Your task to perform on an android device: visit the assistant section in the google photos Image 0: 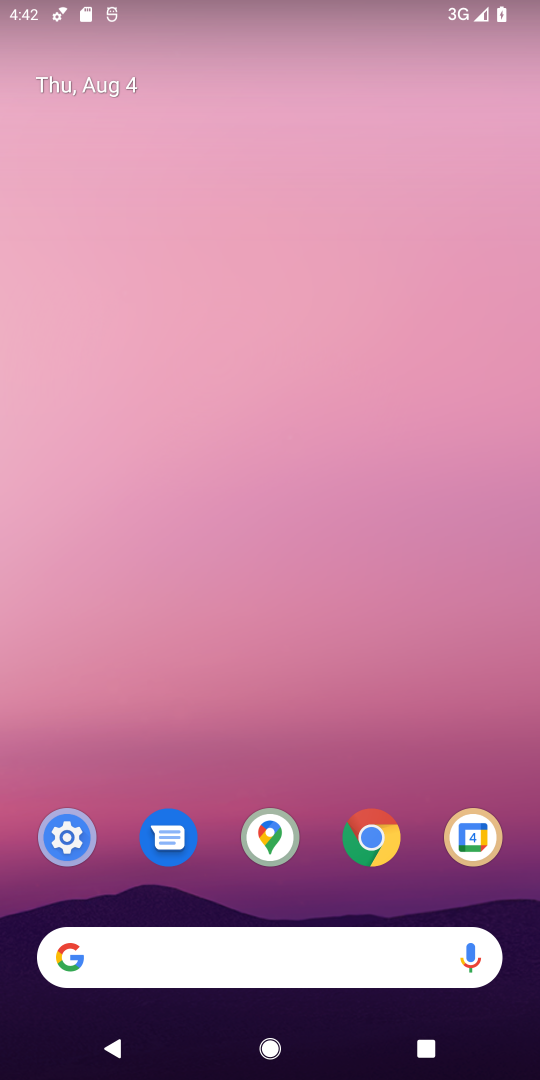
Step 0: drag from (313, 907) to (263, 326)
Your task to perform on an android device: visit the assistant section in the google photos Image 1: 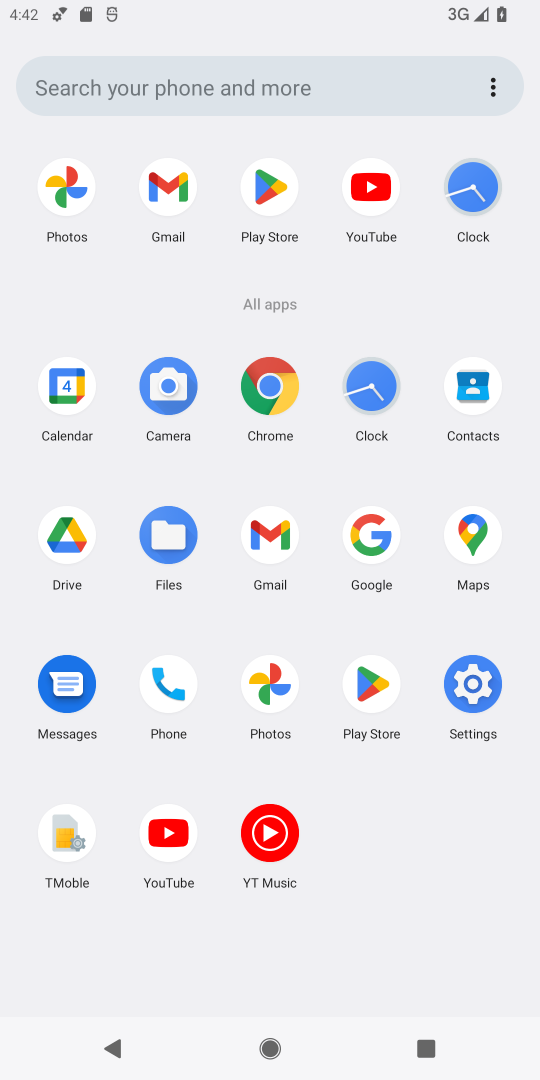
Step 1: click (263, 679)
Your task to perform on an android device: visit the assistant section in the google photos Image 2: 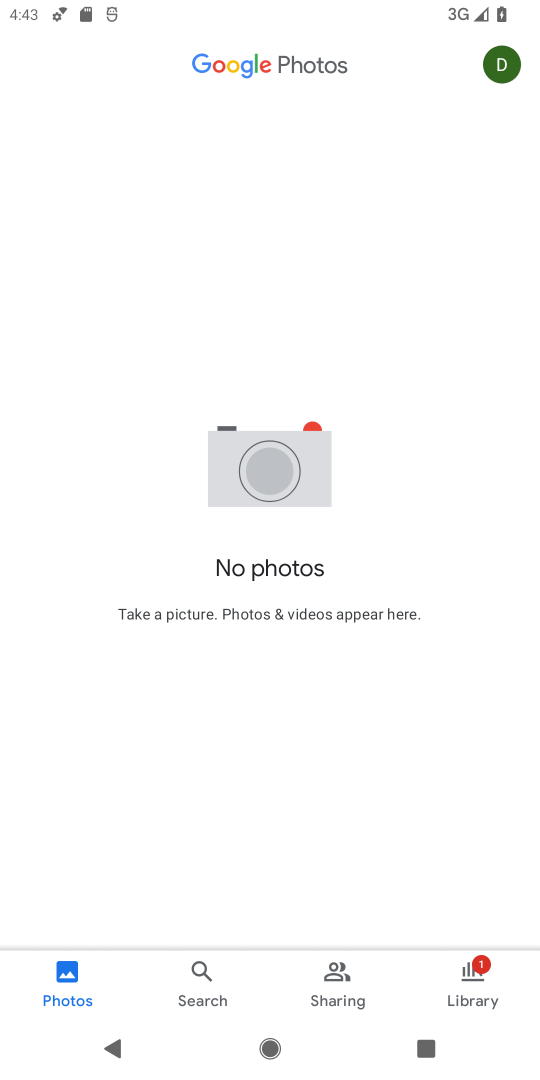
Step 2: click (471, 987)
Your task to perform on an android device: visit the assistant section in the google photos Image 3: 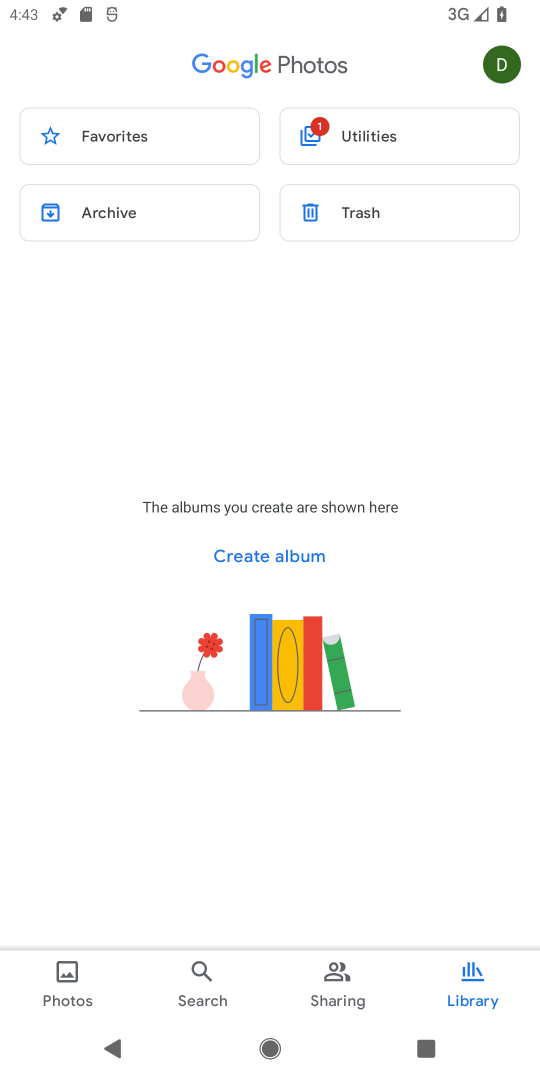
Step 3: click (189, 968)
Your task to perform on an android device: visit the assistant section in the google photos Image 4: 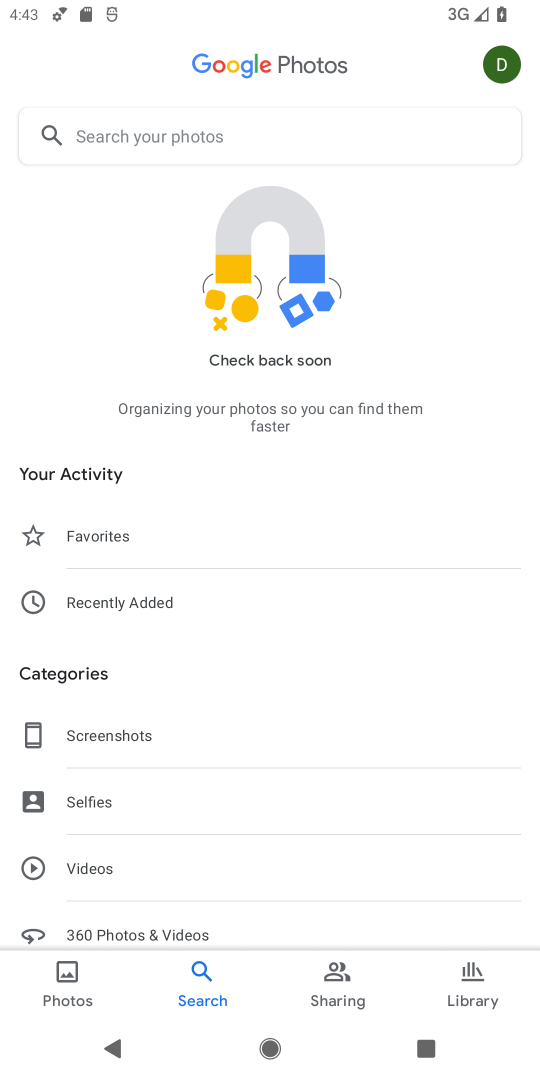
Step 4: task complete